Your task to perform on an android device: Do I have any events today? Image 0: 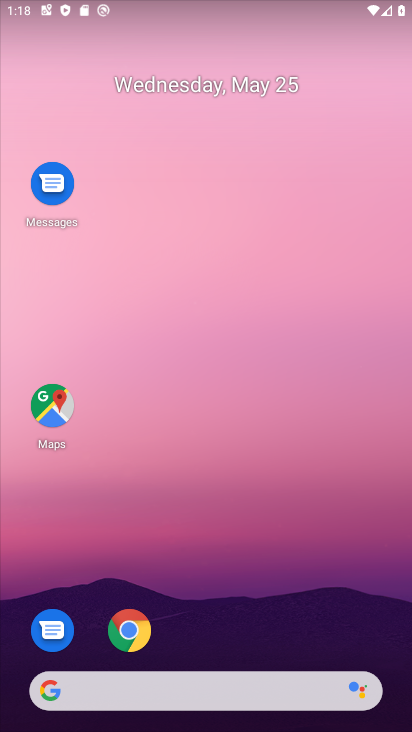
Step 0: drag from (292, 625) to (192, 314)
Your task to perform on an android device: Do I have any events today? Image 1: 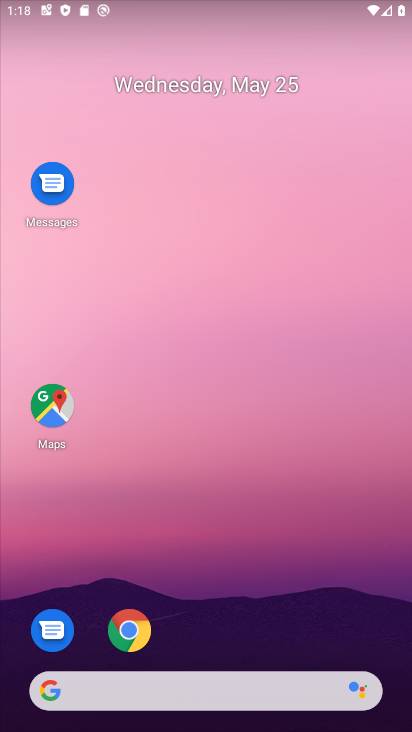
Step 1: drag from (293, 610) to (234, 351)
Your task to perform on an android device: Do I have any events today? Image 2: 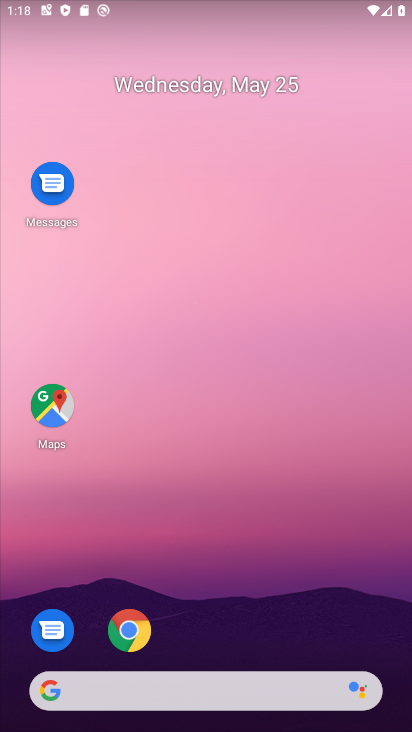
Step 2: drag from (131, 518) to (119, 261)
Your task to perform on an android device: Do I have any events today? Image 3: 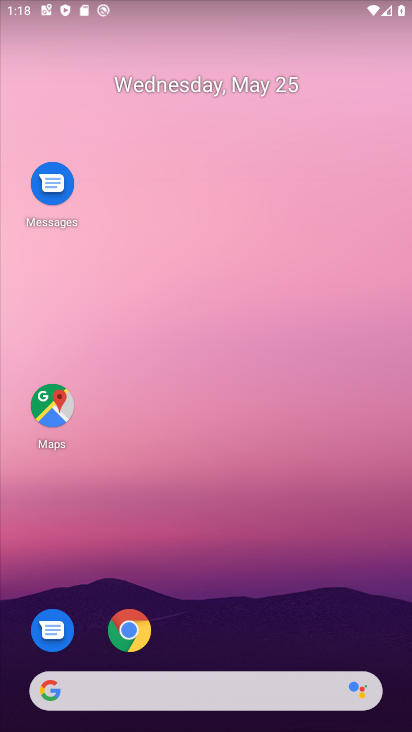
Step 3: drag from (256, 542) to (170, 231)
Your task to perform on an android device: Do I have any events today? Image 4: 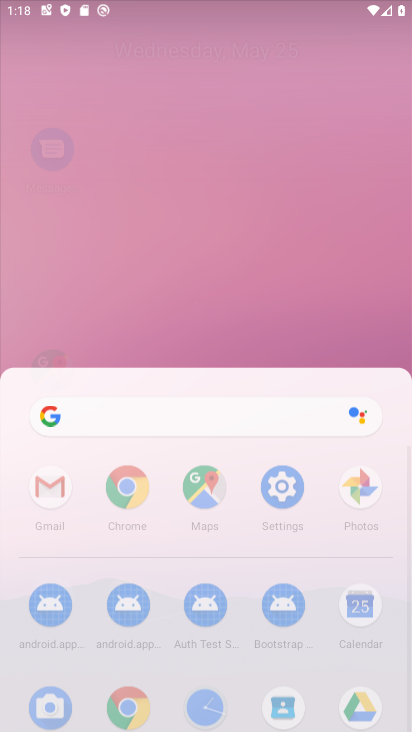
Step 4: drag from (272, 560) to (242, 173)
Your task to perform on an android device: Do I have any events today? Image 5: 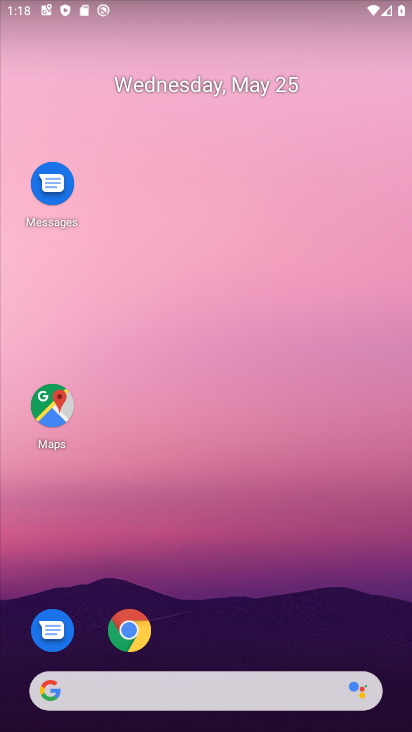
Step 5: drag from (198, 598) to (217, 138)
Your task to perform on an android device: Do I have any events today? Image 6: 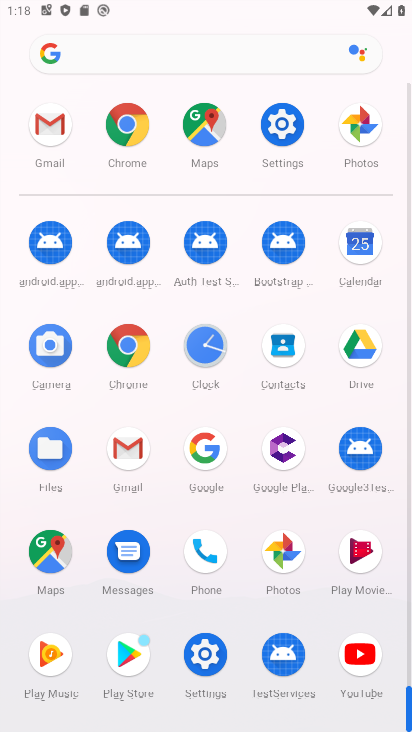
Step 6: drag from (226, 590) to (186, 74)
Your task to perform on an android device: Do I have any events today? Image 7: 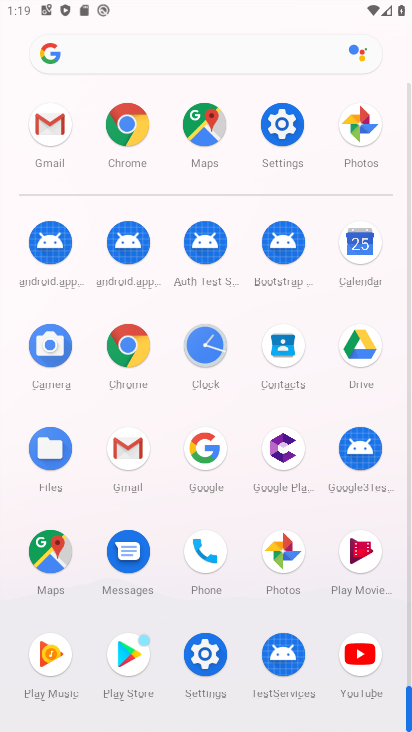
Step 7: click (354, 245)
Your task to perform on an android device: Do I have any events today? Image 8: 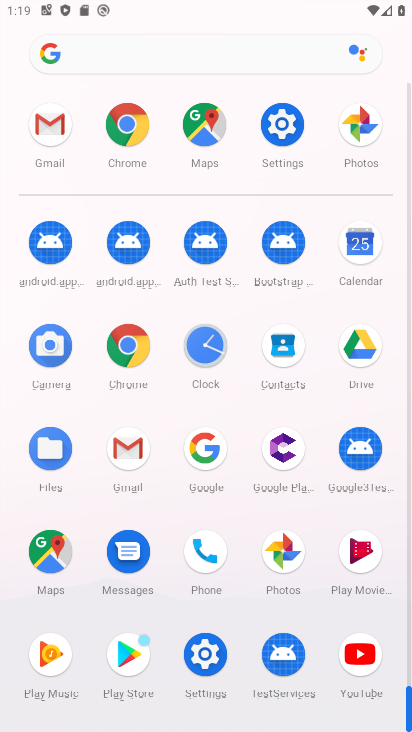
Step 8: click (354, 245)
Your task to perform on an android device: Do I have any events today? Image 9: 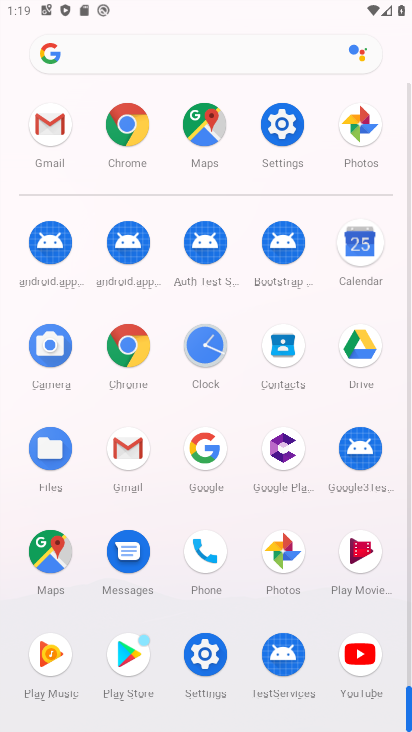
Step 9: click (356, 245)
Your task to perform on an android device: Do I have any events today? Image 10: 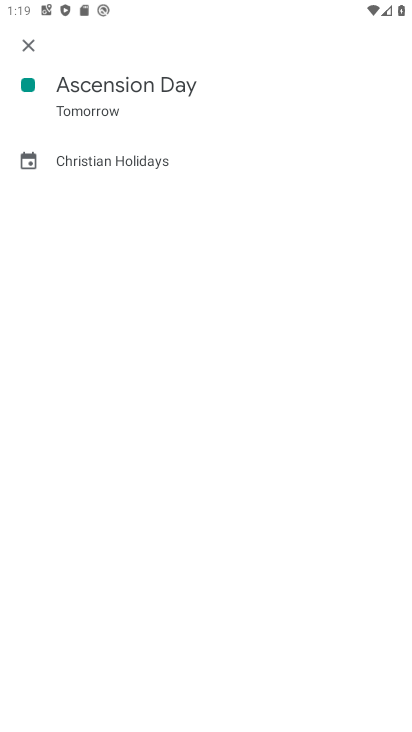
Step 10: click (357, 244)
Your task to perform on an android device: Do I have any events today? Image 11: 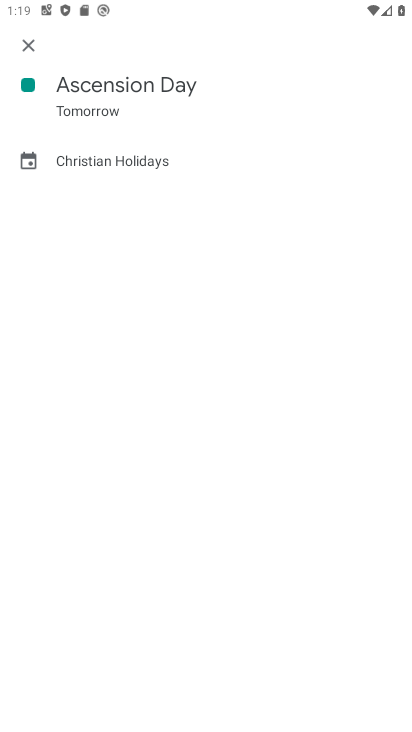
Step 11: click (33, 44)
Your task to perform on an android device: Do I have any events today? Image 12: 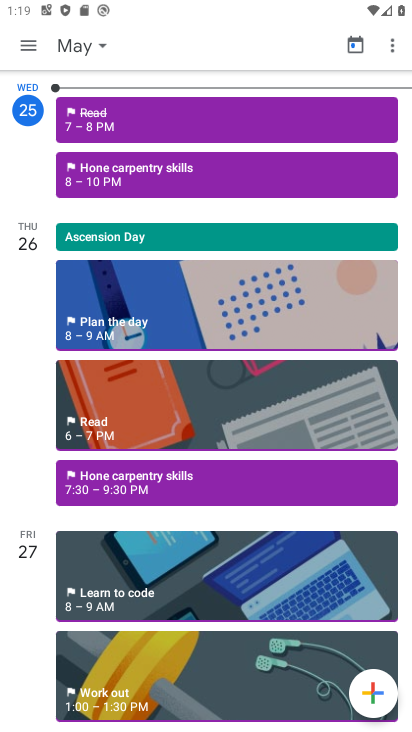
Step 12: click (86, 119)
Your task to perform on an android device: Do I have any events today? Image 13: 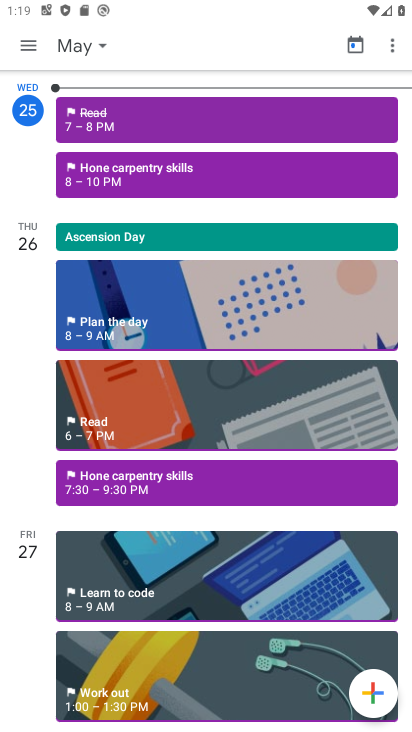
Step 13: click (88, 119)
Your task to perform on an android device: Do I have any events today? Image 14: 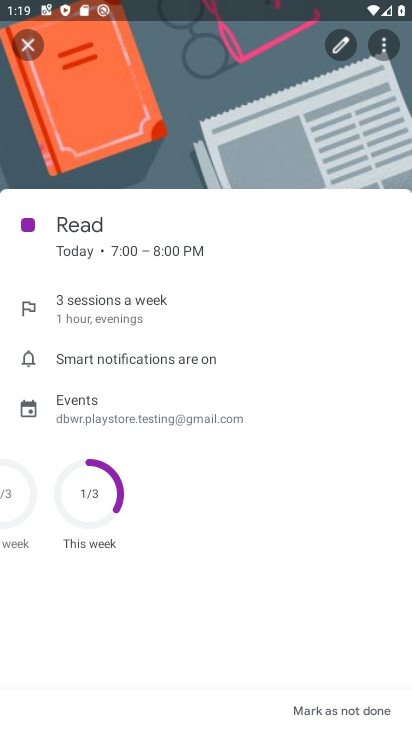
Step 14: task complete